Your task to perform on an android device: Go to privacy settings Image 0: 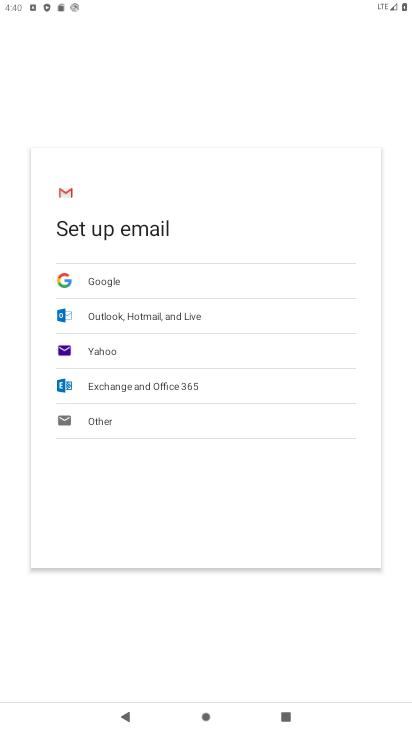
Step 0: press home button
Your task to perform on an android device: Go to privacy settings Image 1: 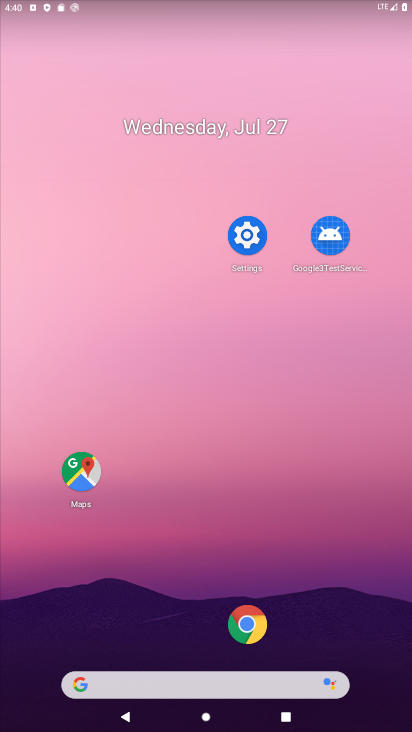
Step 1: click (257, 252)
Your task to perform on an android device: Go to privacy settings Image 2: 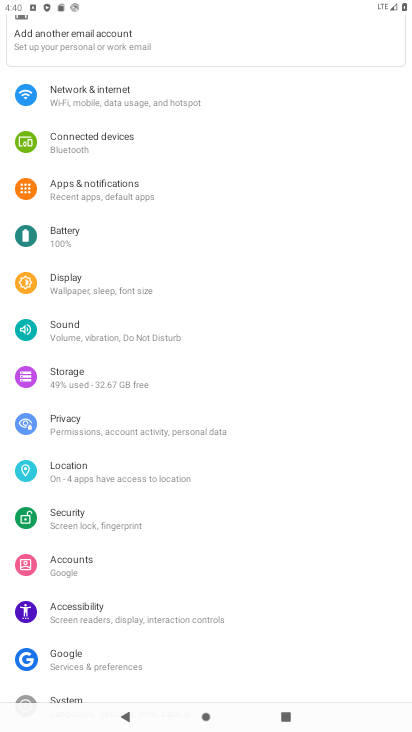
Step 2: click (84, 418)
Your task to perform on an android device: Go to privacy settings Image 3: 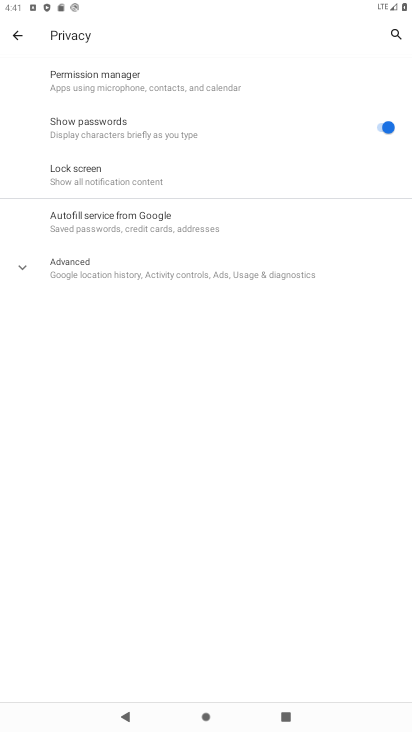
Step 3: task complete